Your task to perform on an android device: turn off sleep mode Image 0: 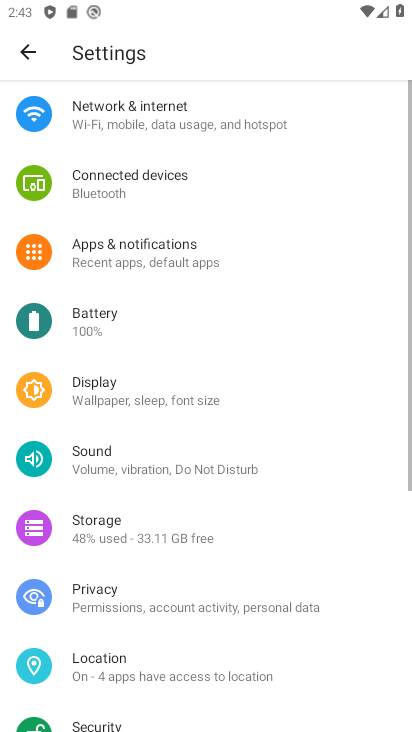
Step 0: drag from (215, 635) to (164, 288)
Your task to perform on an android device: turn off sleep mode Image 1: 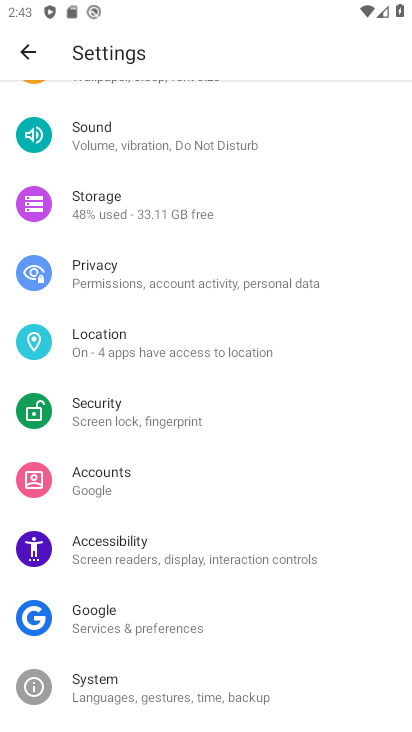
Step 1: task complete